Your task to perform on an android device: Turn off the flashlight Image 0: 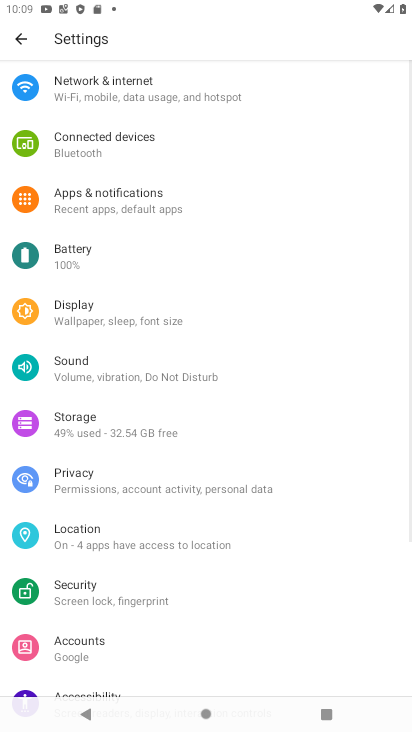
Step 0: press home button
Your task to perform on an android device: Turn off the flashlight Image 1: 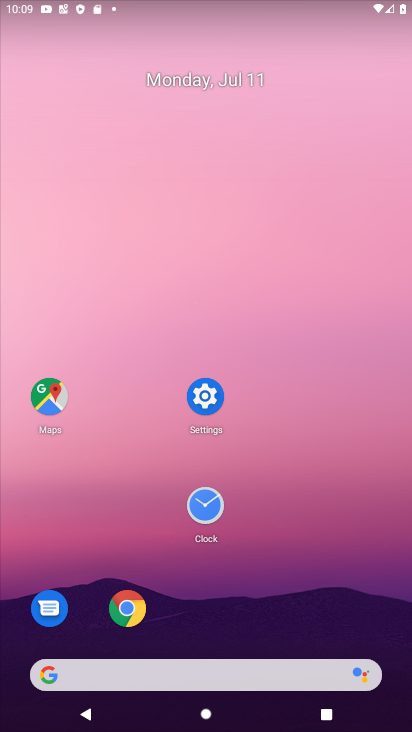
Step 1: click (201, 406)
Your task to perform on an android device: Turn off the flashlight Image 2: 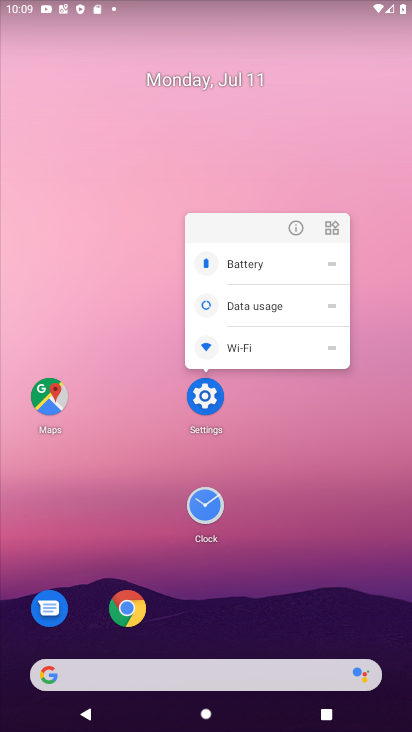
Step 2: click (201, 405)
Your task to perform on an android device: Turn off the flashlight Image 3: 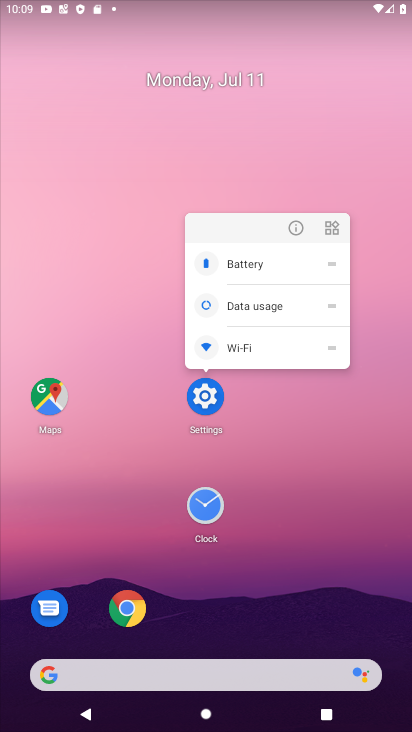
Step 3: click (201, 405)
Your task to perform on an android device: Turn off the flashlight Image 4: 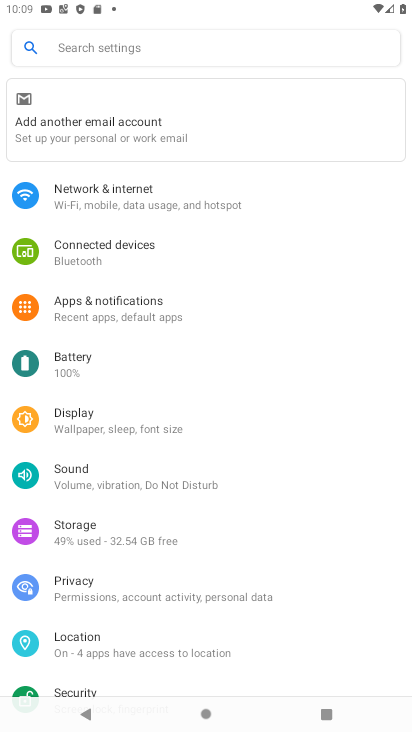
Step 4: click (65, 414)
Your task to perform on an android device: Turn off the flashlight Image 5: 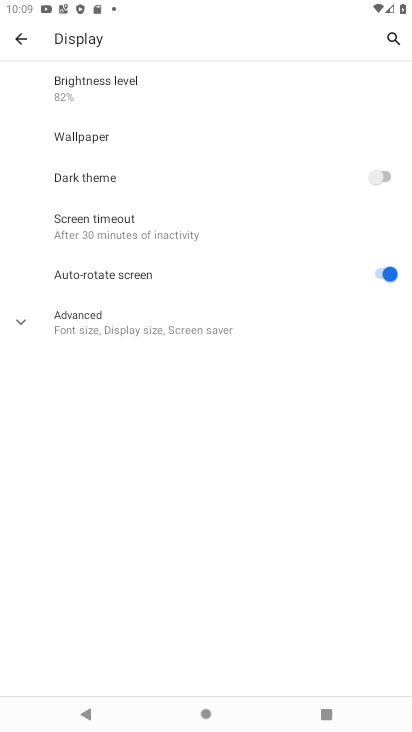
Step 5: click (13, 323)
Your task to perform on an android device: Turn off the flashlight Image 6: 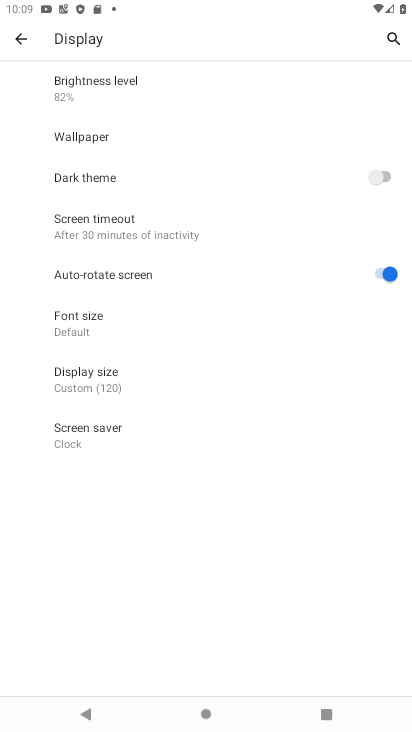
Step 6: task complete